Your task to perform on an android device: Find coffee shops on Maps Image 0: 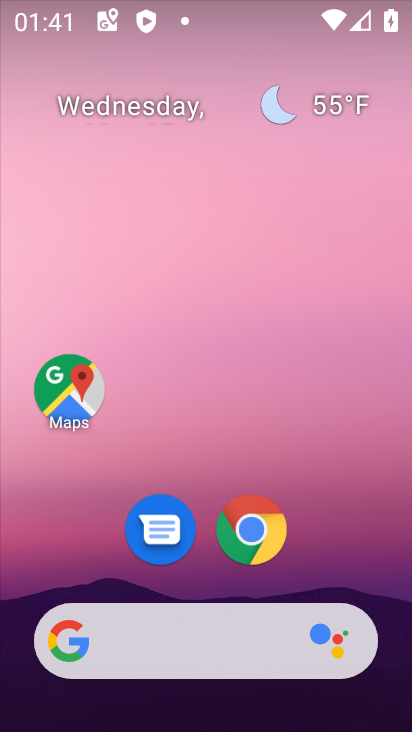
Step 0: drag from (208, 707) to (208, 251)
Your task to perform on an android device: Find coffee shops on Maps Image 1: 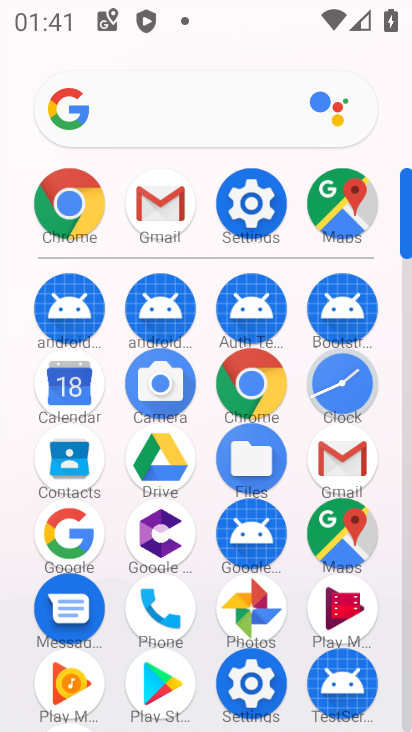
Step 1: click (344, 530)
Your task to perform on an android device: Find coffee shops on Maps Image 2: 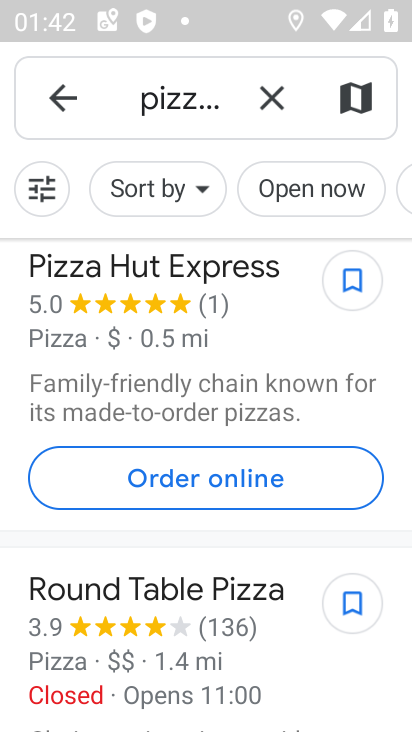
Step 2: click (271, 92)
Your task to perform on an android device: Find coffee shops on Maps Image 3: 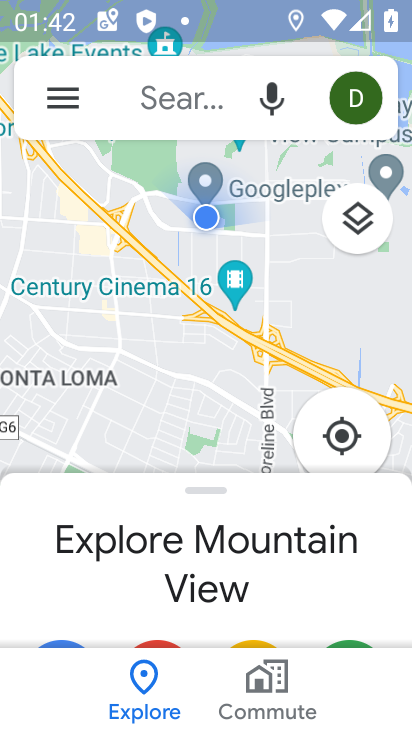
Step 3: click (177, 94)
Your task to perform on an android device: Find coffee shops on Maps Image 4: 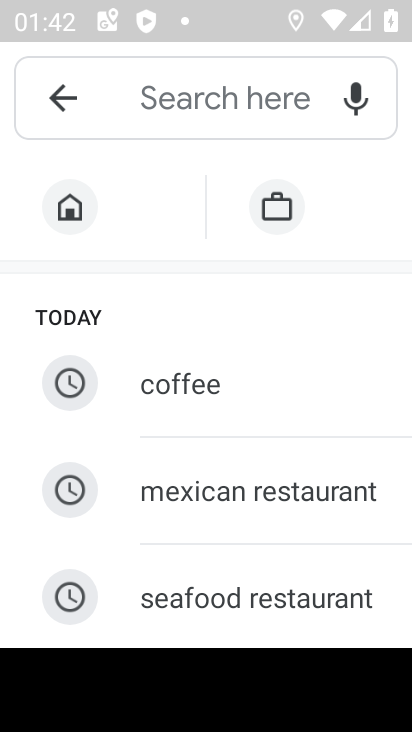
Step 4: type "coffee shops"
Your task to perform on an android device: Find coffee shops on Maps Image 5: 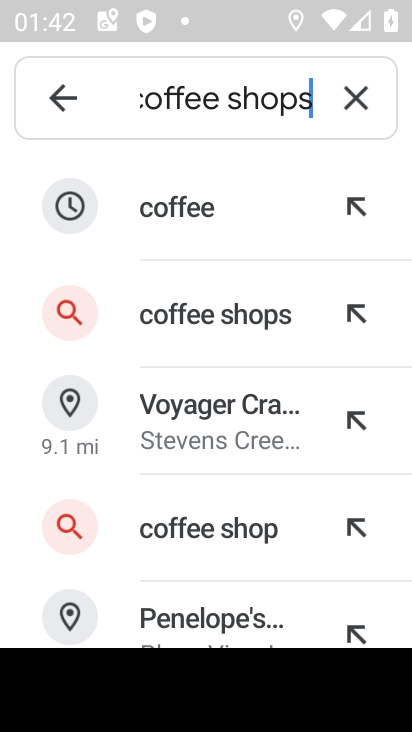
Step 5: click (236, 313)
Your task to perform on an android device: Find coffee shops on Maps Image 6: 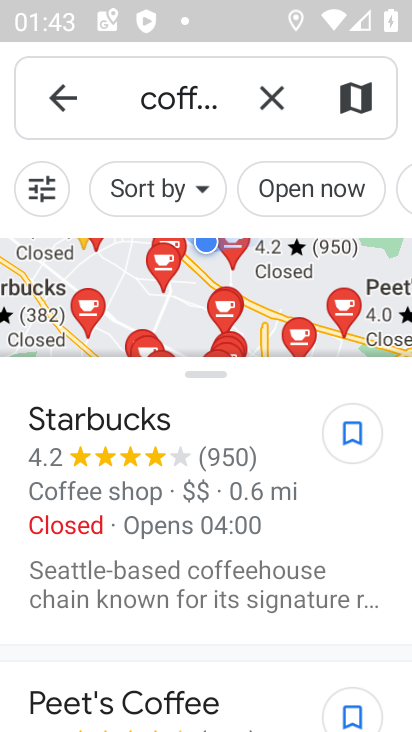
Step 6: task complete